Your task to perform on an android device: Search for Mexican restaurants on Maps Image 0: 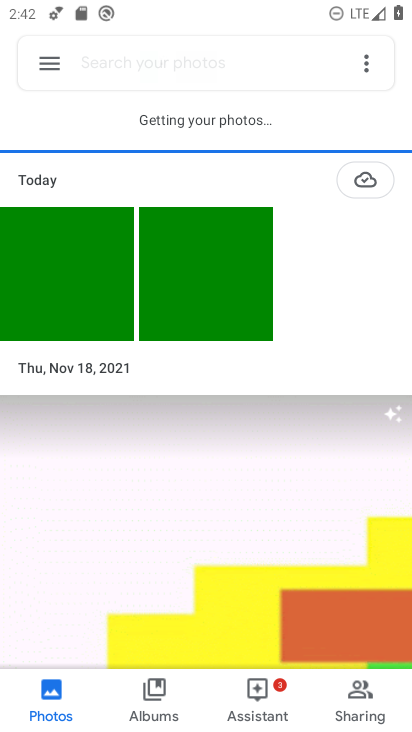
Step 0: press home button
Your task to perform on an android device: Search for Mexican restaurants on Maps Image 1: 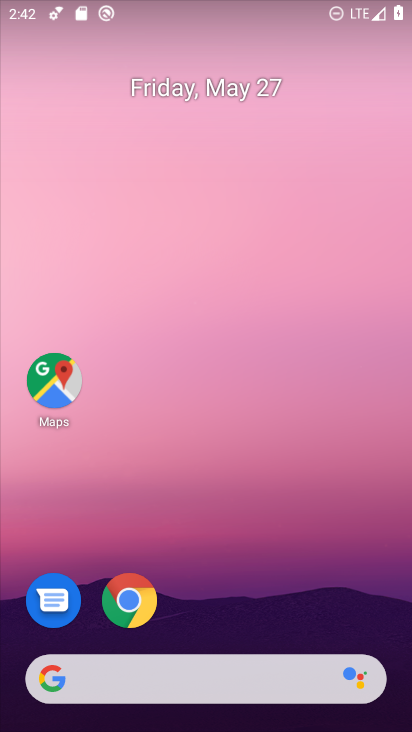
Step 1: drag from (210, 717) to (210, 131)
Your task to perform on an android device: Search for Mexican restaurants on Maps Image 2: 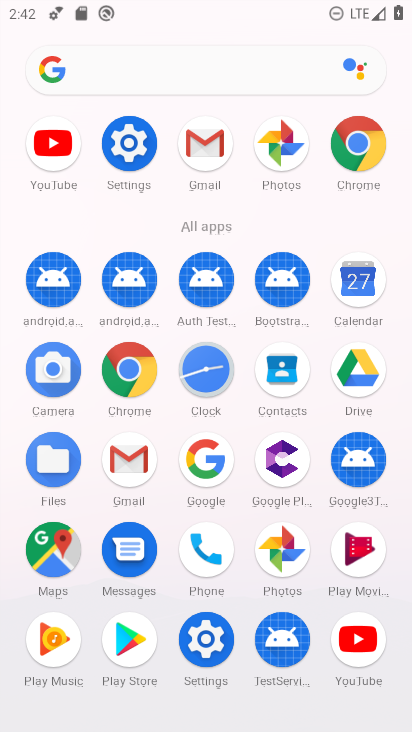
Step 2: click (50, 540)
Your task to perform on an android device: Search for Mexican restaurants on Maps Image 3: 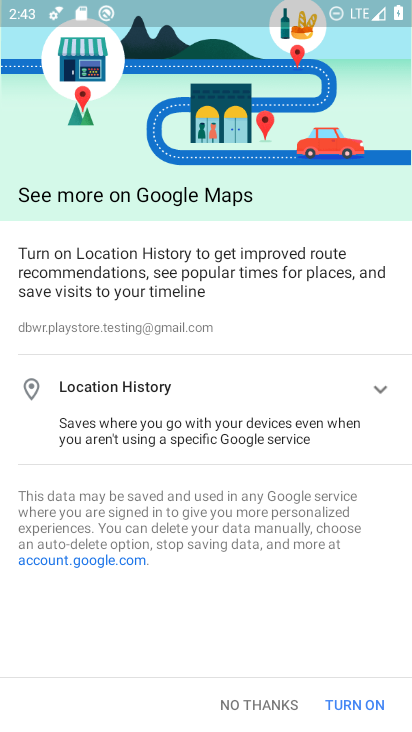
Step 3: click (268, 694)
Your task to perform on an android device: Search for Mexican restaurants on Maps Image 4: 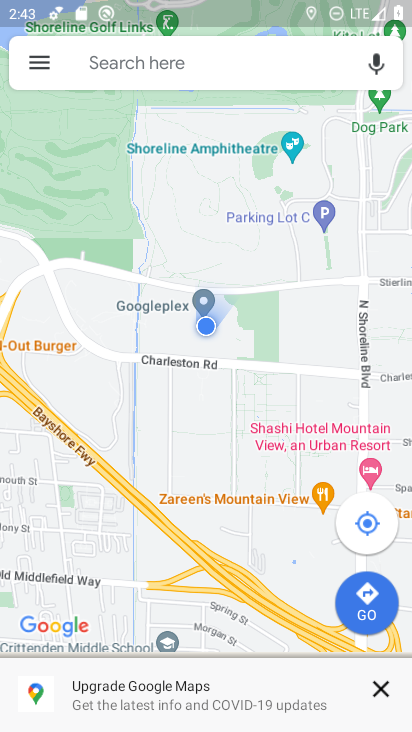
Step 4: click (226, 69)
Your task to perform on an android device: Search for Mexican restaurants on Maps Image 5: 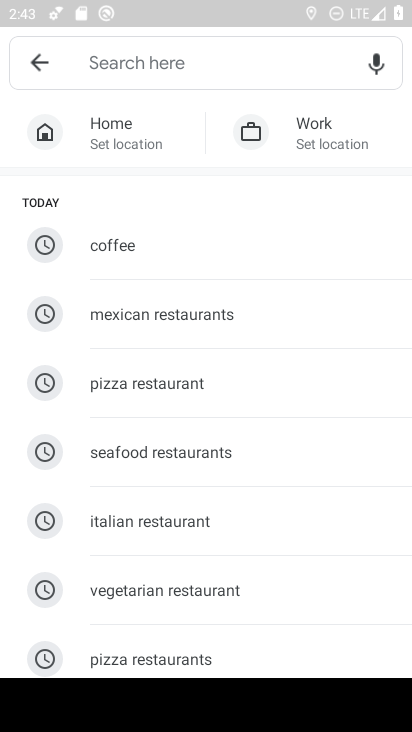
Step 5: type "Mexican restaurants"
Your task to perform on an android device: Search for Mexican restaurants on Maps Image 6: 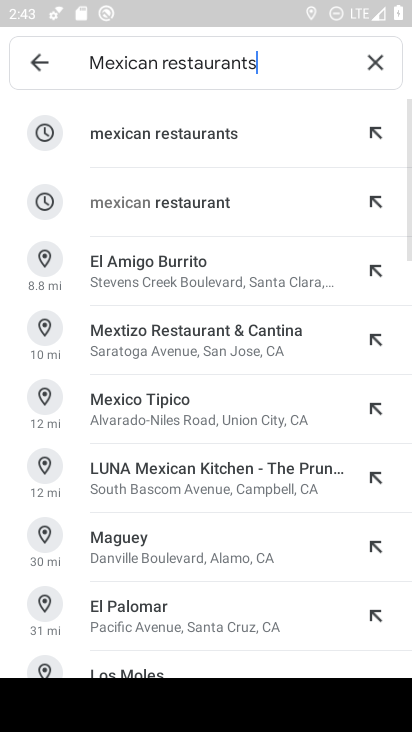
Step 6: click (120, 131)
Your task to perform on an android device: Search for Mexican restaurants on Maps Image 7: 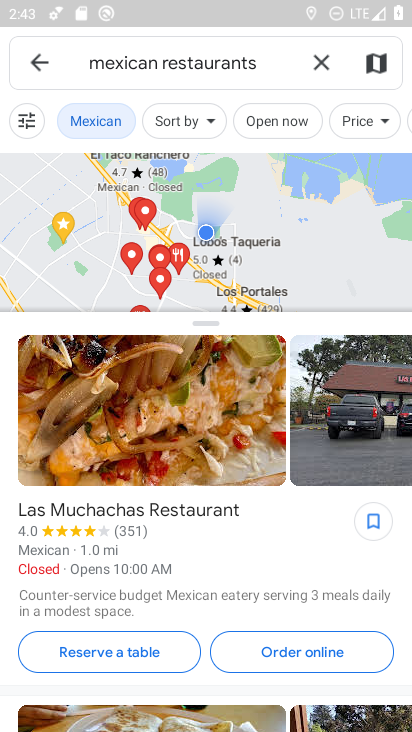
Step 7: task complete